Your task to perform on an android device: toggle notification dots Image 0: 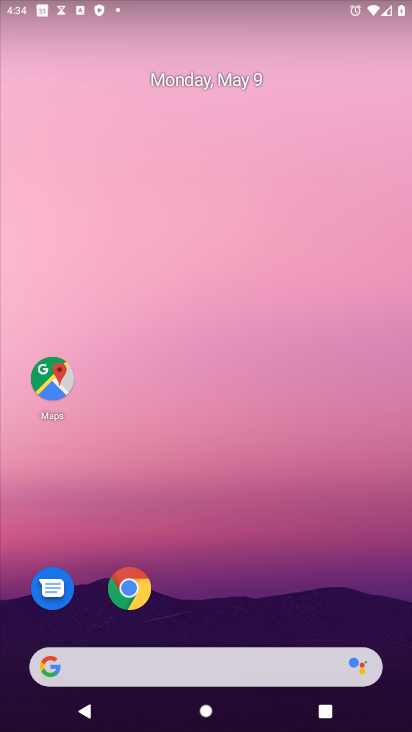
Step 0: drag from (277, 567) to (209, 74)
Your task to perform on an android device: toggle notification dots Image 1: 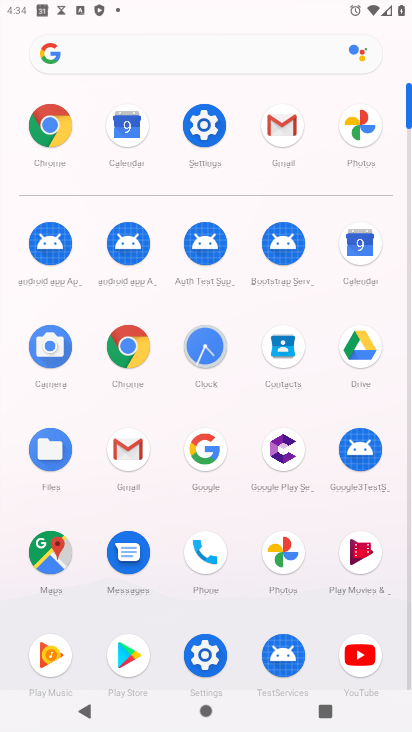
Step 1: click (210, 124)
Your task to perform on an android device: toggle notification dots Image 2: 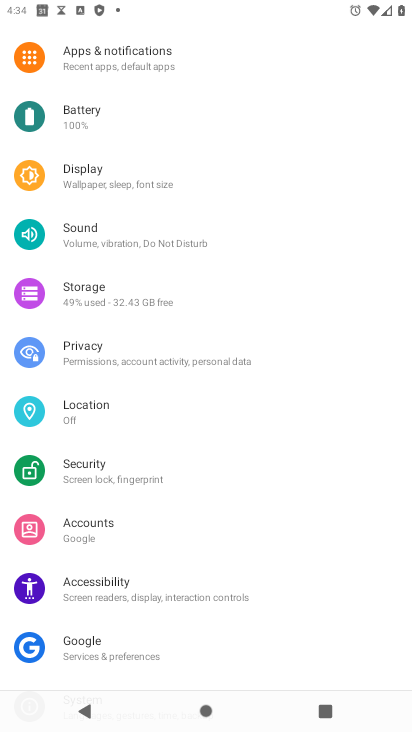
Step 2: click (156, 59)
Your task to perform on an android device: toggle notification dots Image 3: 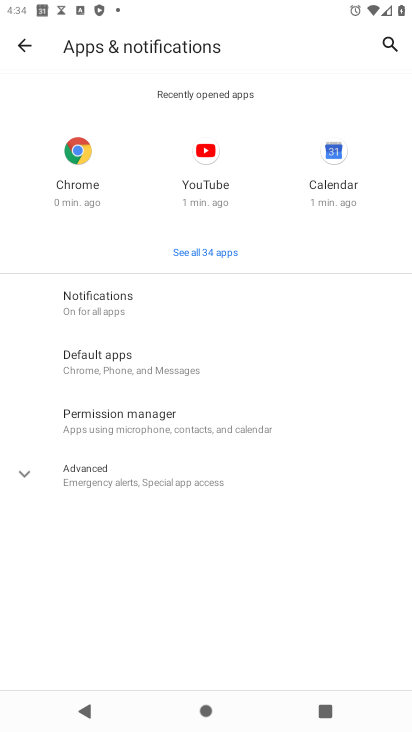
Step 3: click (150, 302)
Your task to perform on an android device: toggle notification dots Image 4: 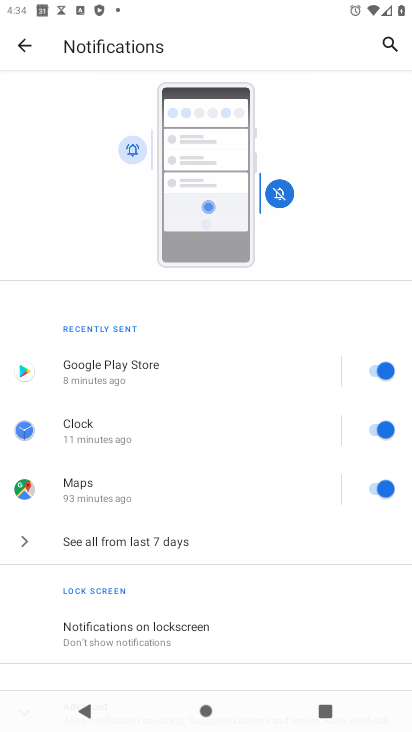
Step 4: drag from (262, 629) to (237, 124)
Your task to perform on an android device: toggle notification dots Image 5: 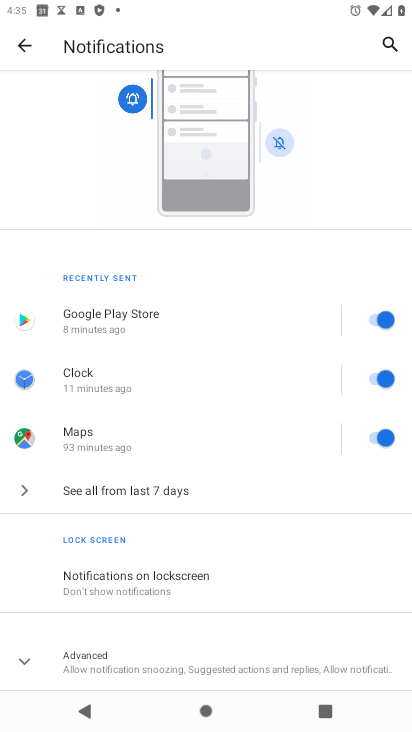
Step 5: click (197, 643)
Your task to perform on an android device: toggle notification dots Image 6: 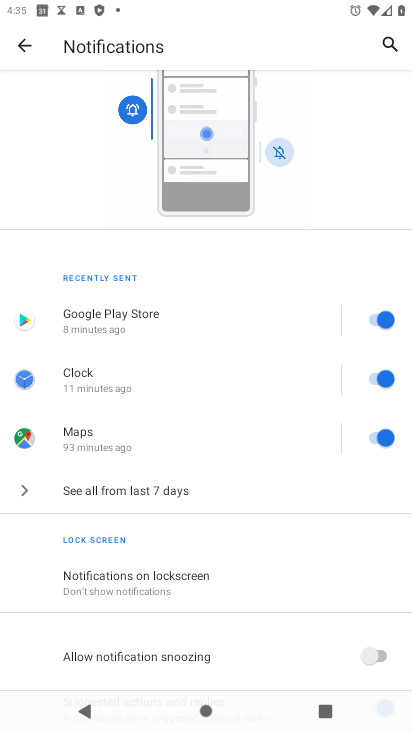
Step 6: drag from (213, 573) to (202, 182)
Your task to perform on an android device: toggle notification dots Image 7: 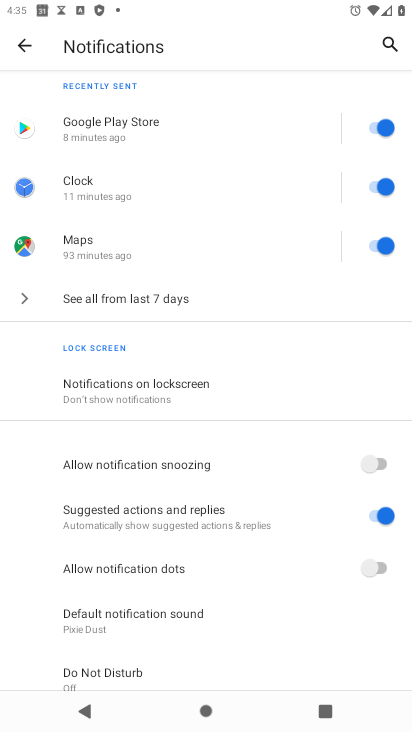
Step 7: click (365, 565)
Your task to perform on an android device: toggle notification dots Image 8: 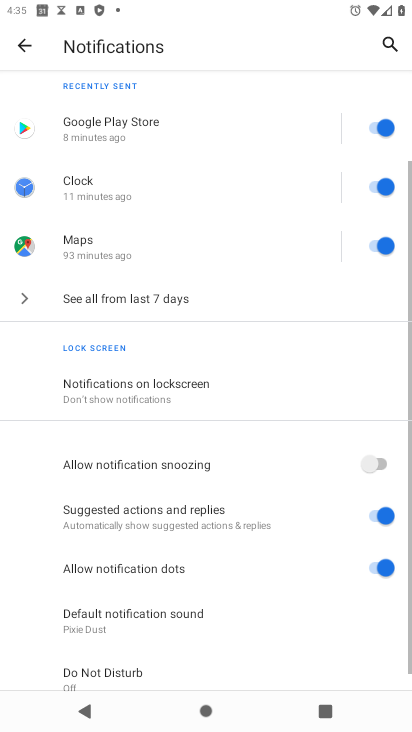
Step 8: task complete